Your task to perform on an android device: Play the last video I watched on Youtube Image 0: 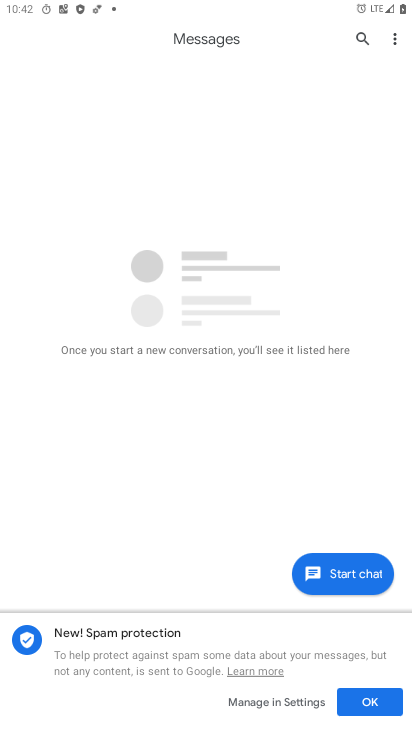
Step 0: press home button
Your task to perform on an android device: Play the last video I watched on Youtube Image 1: 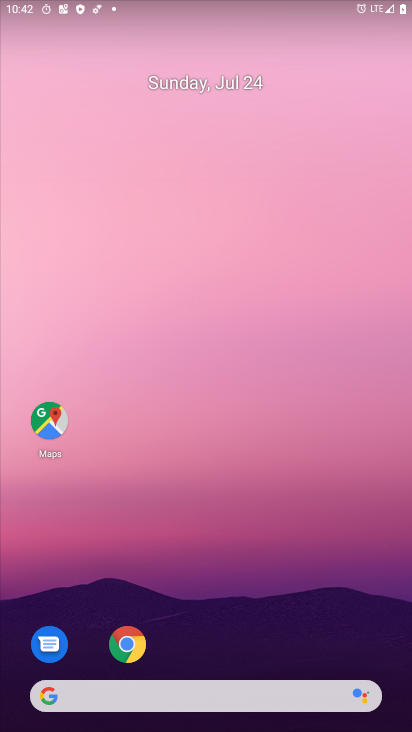
Step 1: drag from (213, 660) to (247, 176)
Your task to perform on an android device: Play the last video I watched on Youtube Image 2: 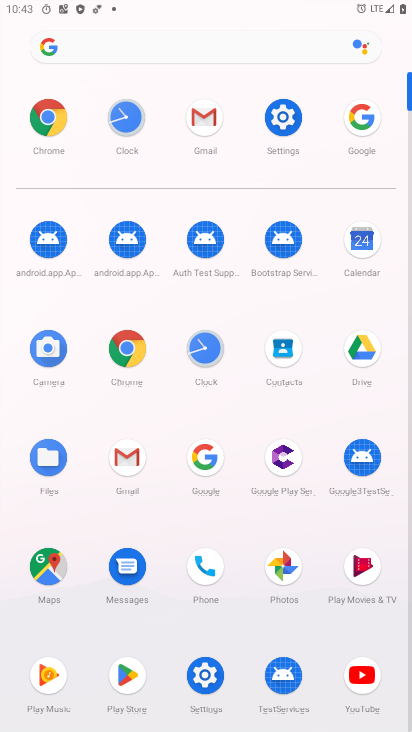
Step 2: click (374, 667)
Your task to perform on an android device: Play the last video I watched on Youtube Image 3: 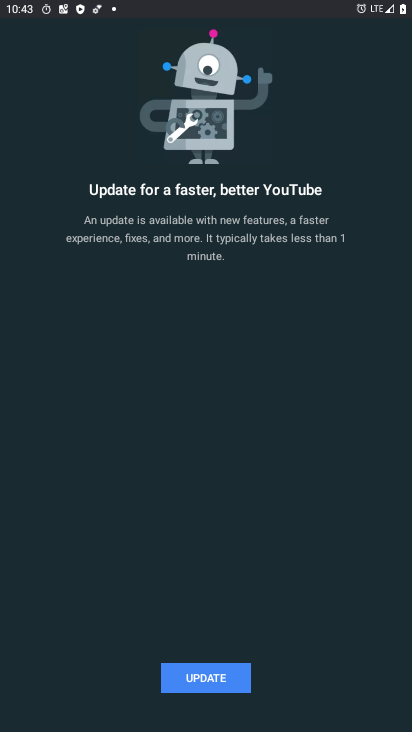
Step 3: click (179, 683)
Your task to perform on an android device: Play the last video I watched on Youtube Image 4: 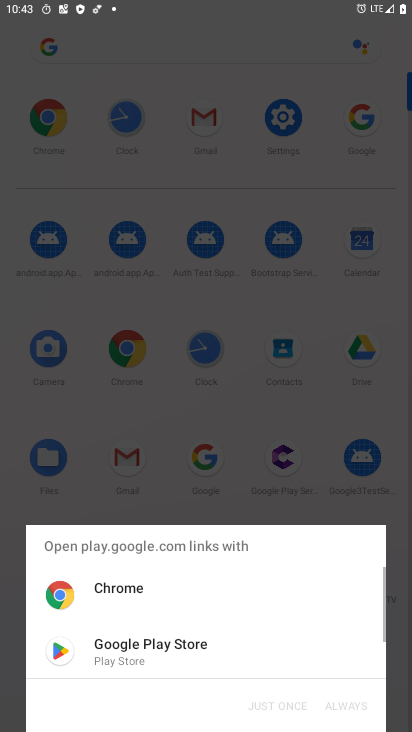
Step 4: click (147, 651)
Your task to perform on an android device: Play the last video I watched on Youtube Image 5: 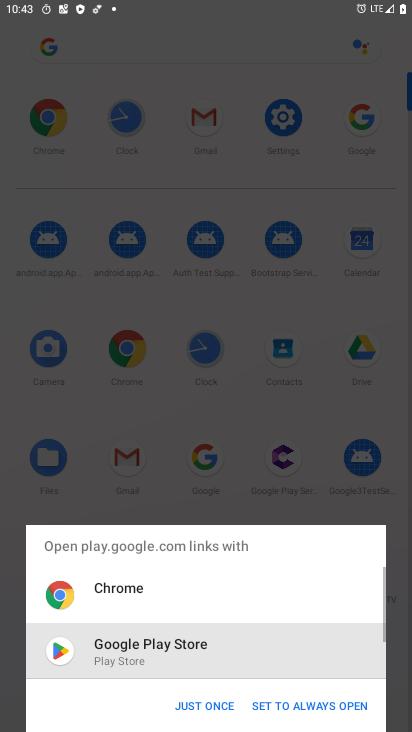
Step 5: click (220, 708)
Your task to perform on an android device: Play the last video I watched on Youtube Image 6: 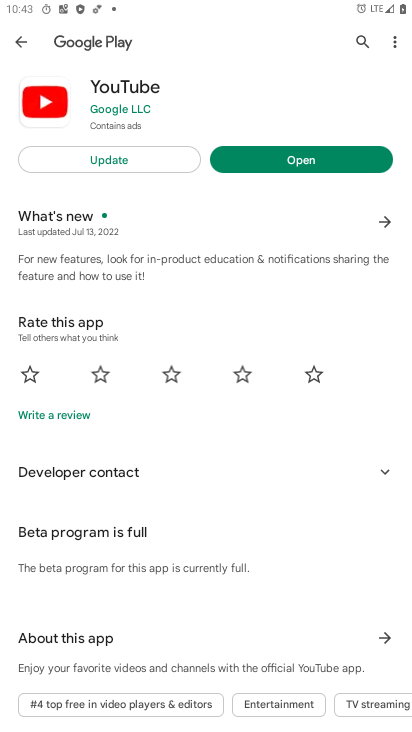
Step 6: click (113, 161)
Your task to perform on an android device: Play the last video I watched on Youtube Image 7: 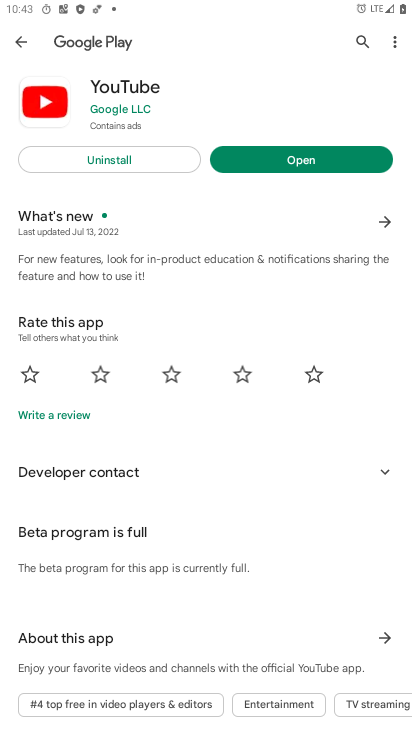
Step 7: click (262, 161)
Your task to perform on an android device: Play the last video I watched on Youtube Image 8: 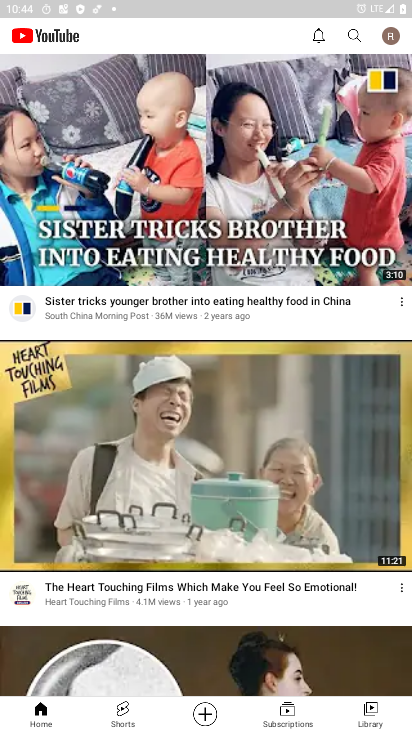
Step 8: click (361, 719)
Your task to perform on an android device: Play the last video I watched on Youtube Image 9: 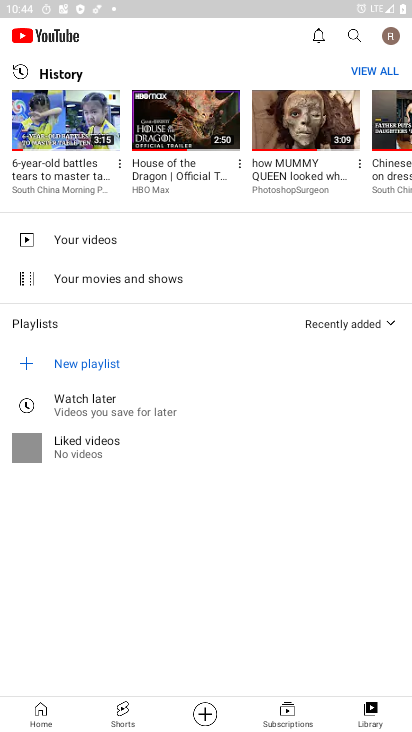
Step 9: click (76, 111)
Your task to perform on an android device: Play the last video I watched on Youtube Image 10: 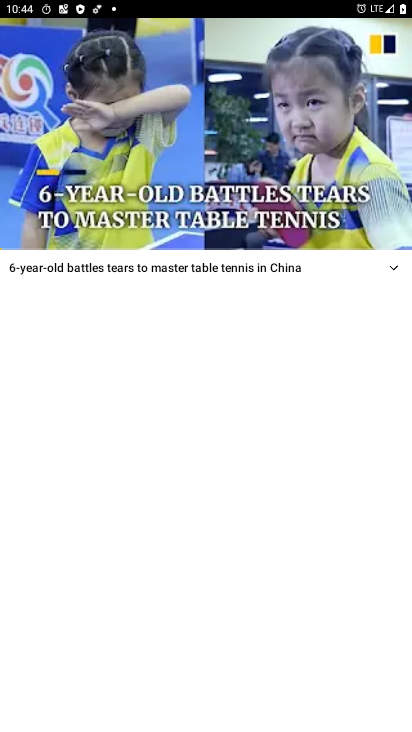
Step 10: task complete